Your task to perform on an android device: change the clock display to analog Image 0: 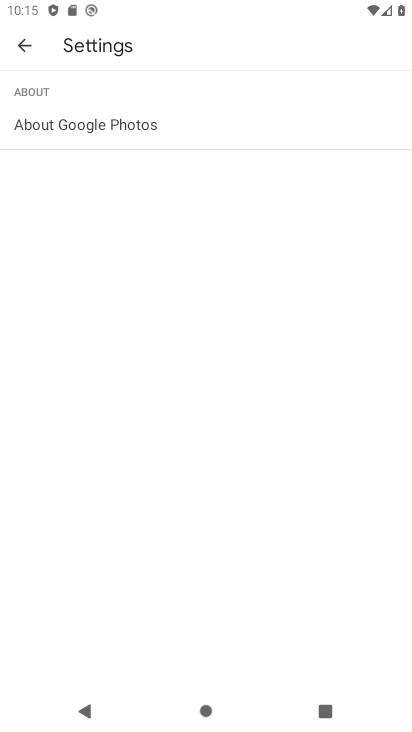
Step 0: press home button
Your task to perform on an android device: change the clock display to analog Image 1: 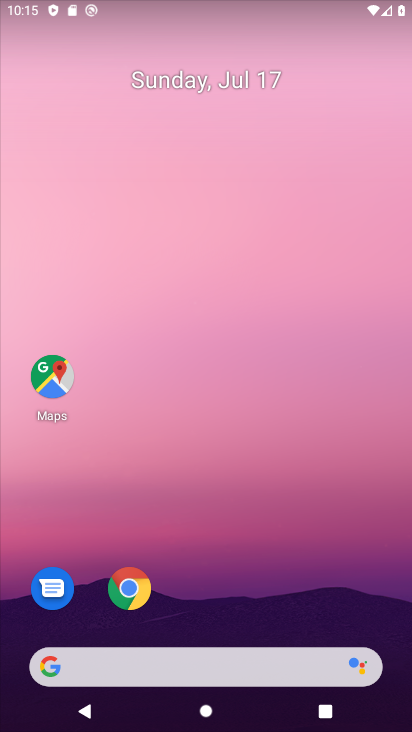
Step 1: drag from (164, 634) to (214, 125)
Your task to perform on an android device: change the clock display to analog Image 2: 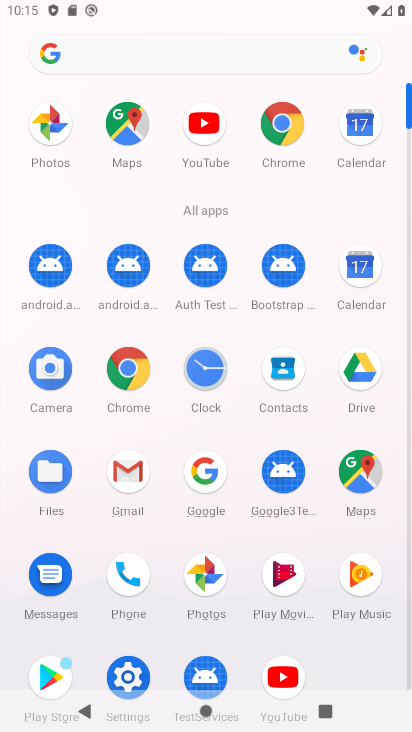
Step 2: click (209, 366)
Your task to perform on an android device: change the clock display to analog Image 3: 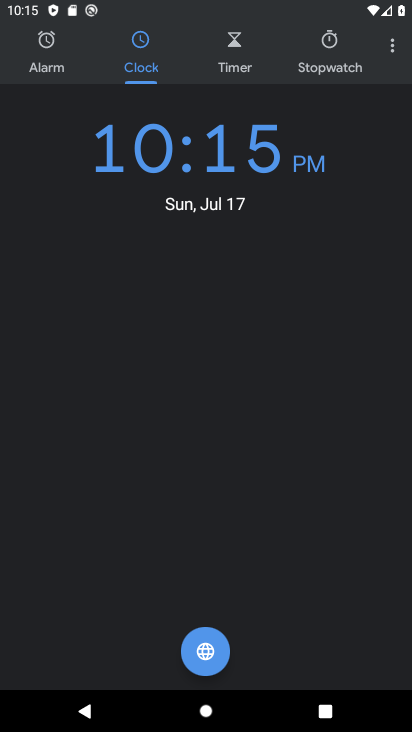
Step 3: click (387, 47)
Your task to perform on an android device: change the clock display to analog Image 4: 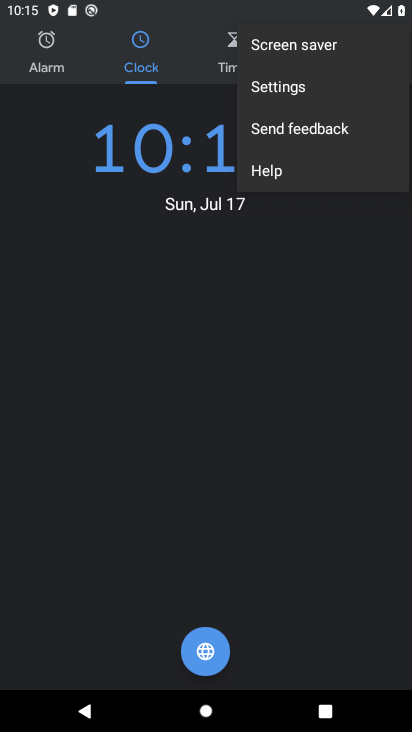
Step 4: click (360, 78)
Your task to perform on an android device: change the clock display to analog Image 5: 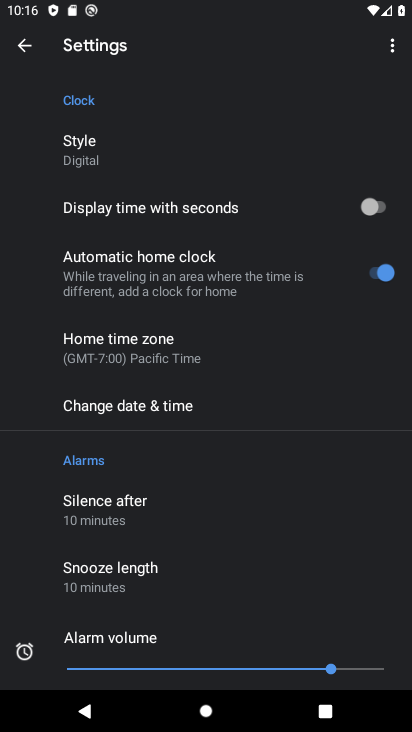
Step 5: click (139, 165)
Your task to perform on an android device: change the clock display to analog Image 6: 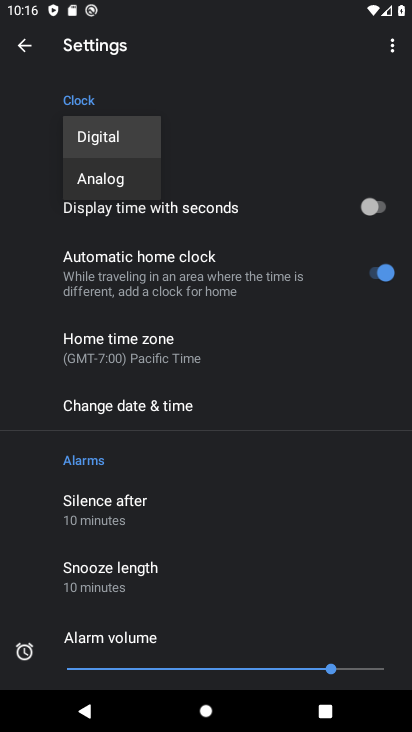
Step 6: click (111, 180)
Your task to perform on an android device: change the clock display to analog Image 7: 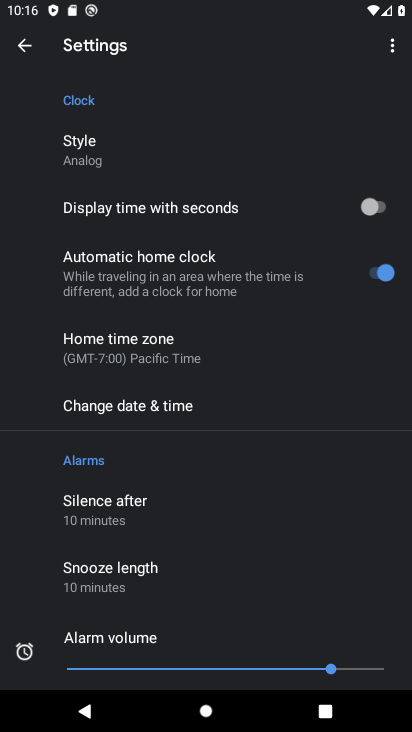
Step 7: task complete